Your task to perform on an android device: change keyboard looks Image 0: 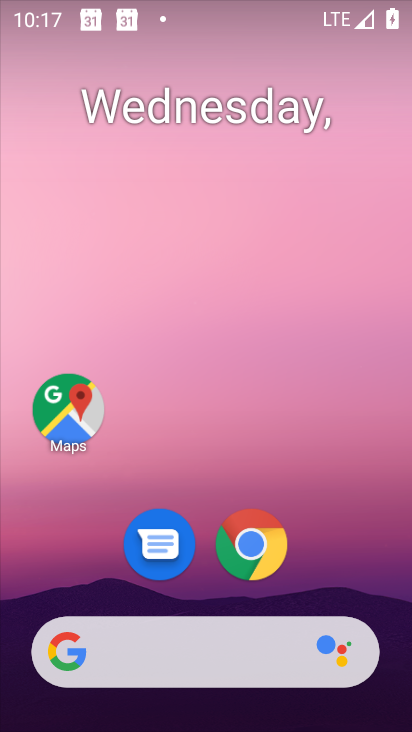
Step 0: drag from (330, 574) to (311, 76)
Your task to perform on an android device: change keyboard looks Image 1: 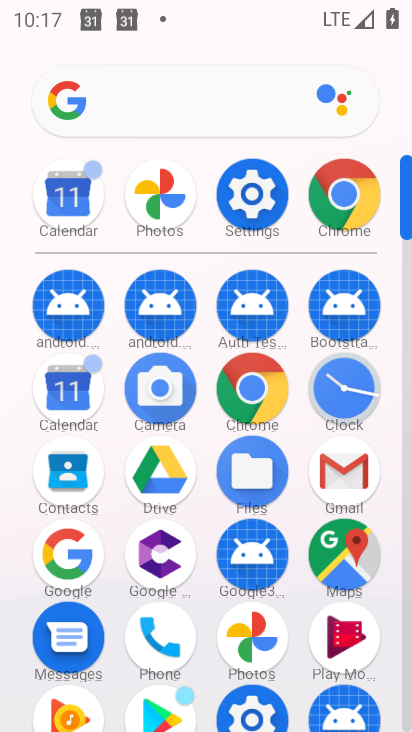
Step 1: click (236, 186)
Your task to perform on an android device: change keyboard looks Image 2: 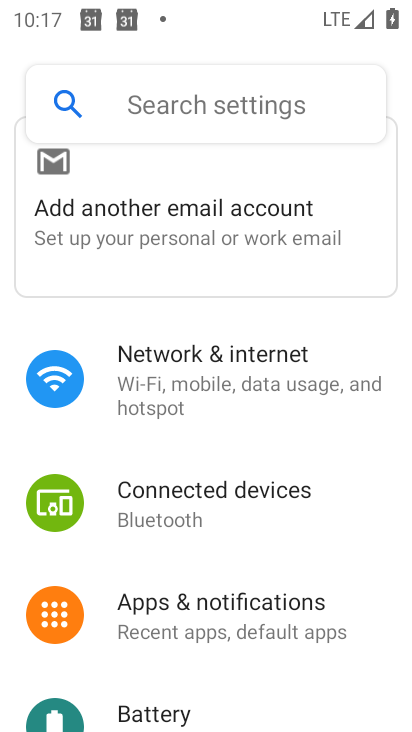
Step 2: drag from (187, 591) to (211, 135)
Your task to perform on an android device: change keyboard looks Image 3: 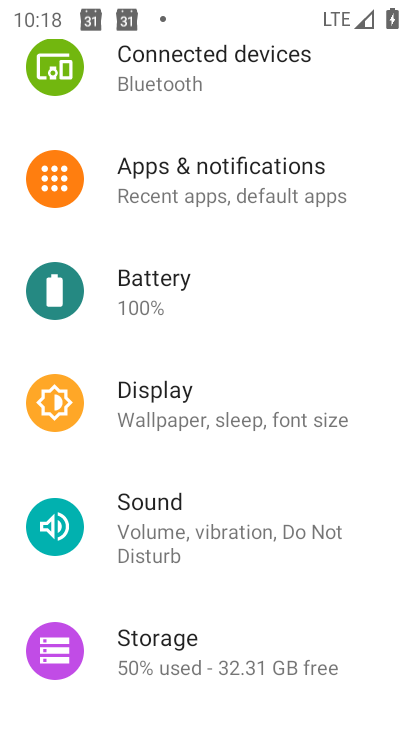
Step 3: drag from (212, 353) to (221, 254)
Your task to perform on an android device: change keyboard looks Image 4: 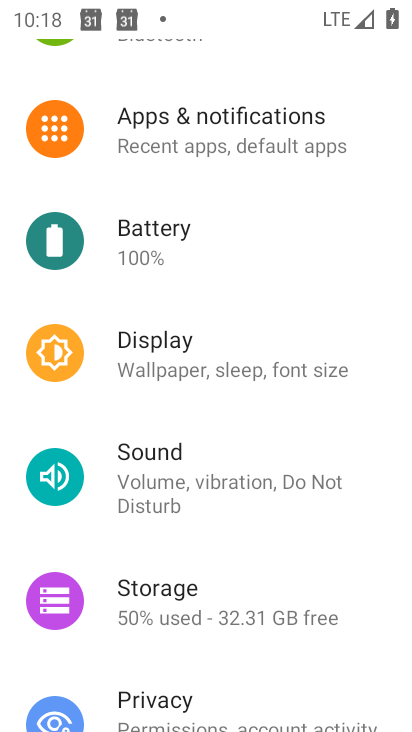
Step 4: drag from (201, 614) to (205, 255)
Your task to perform on an android device: change keyboard looks Image 5: 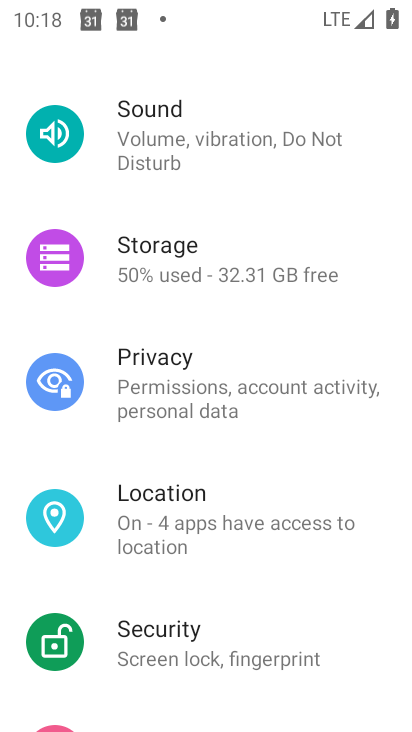
Step 5: drag from (212, 596) to (222, 134)
Your task to perform on an android device: change keyboard looks Image 6: 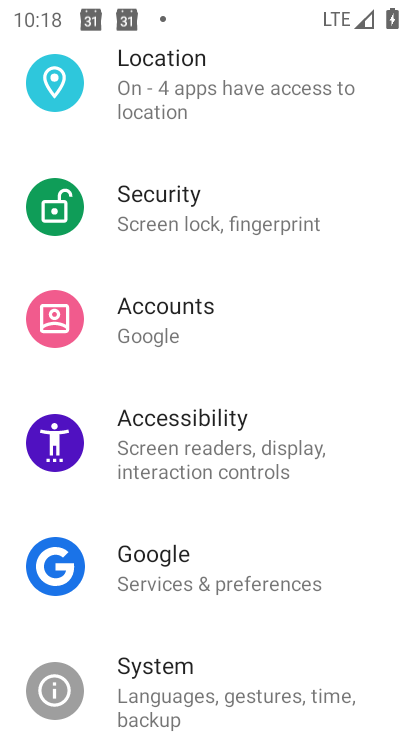
Step 6: click (157, 677)
Your task to perform on an android device: change keyboard looks Image 7: 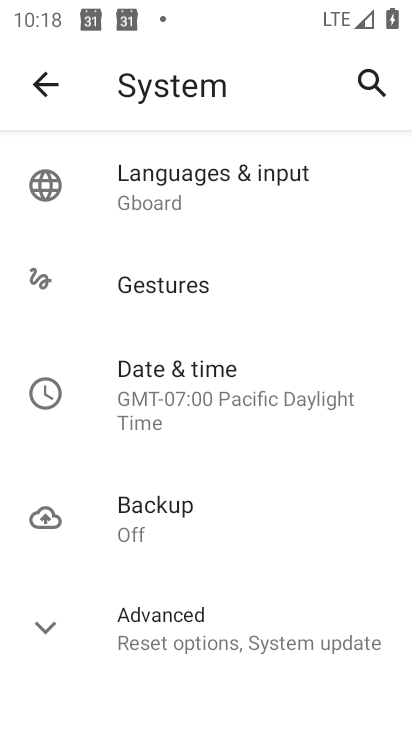
Step 7: click (213, 166)
Your task to perform on an android device: change keyboard looks Image 8: 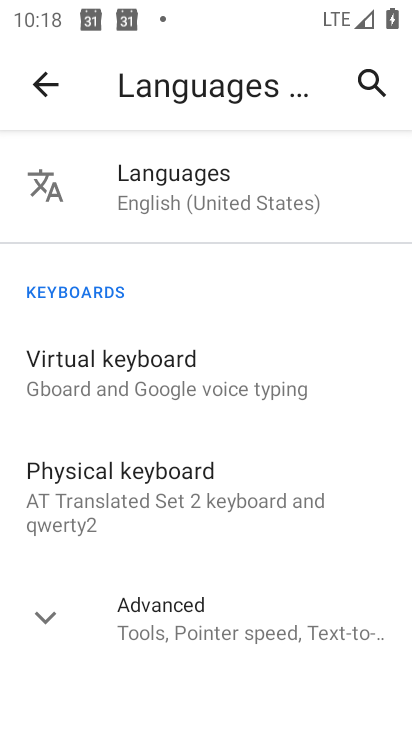
Step 8: click (123, 357)
Your task to perform on an android device: change keyboard looks Image 9: 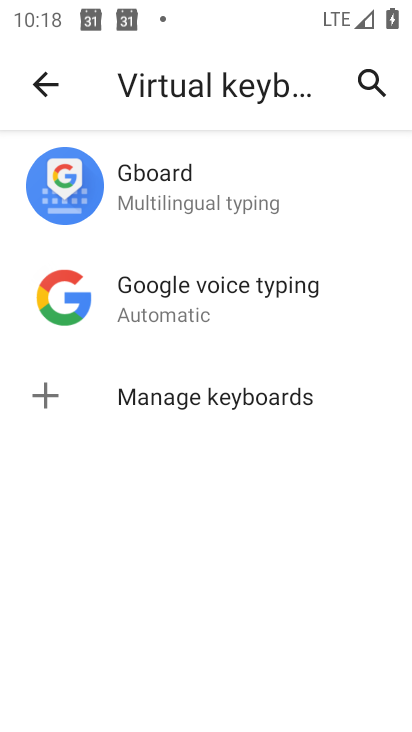
Step 9: click (199, 188)
Your task to perform on an android device: change keyboard looks Image 10: 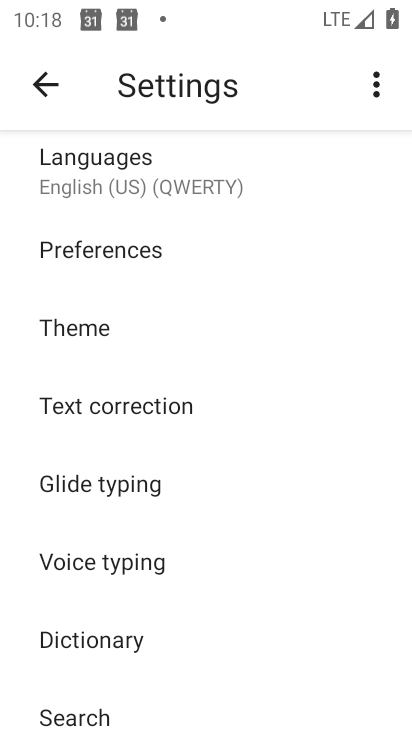
Step 10: click (129, 329)
Your task to perform on an android device: change keyboard looks Image 11: 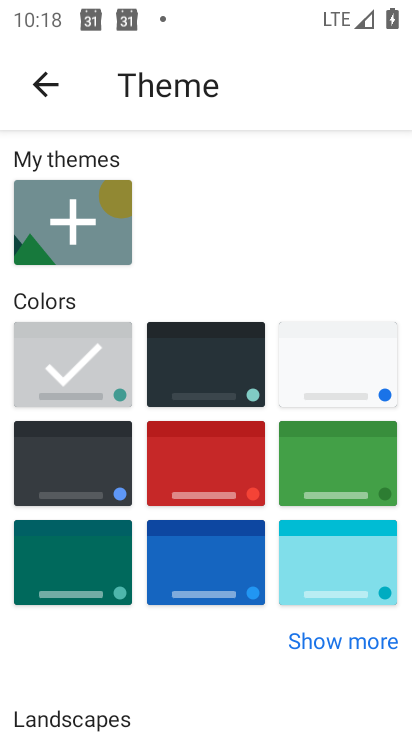
Step 11: click (86, 553)
Your task to perform on an android device: change keyboard looks Image 12: 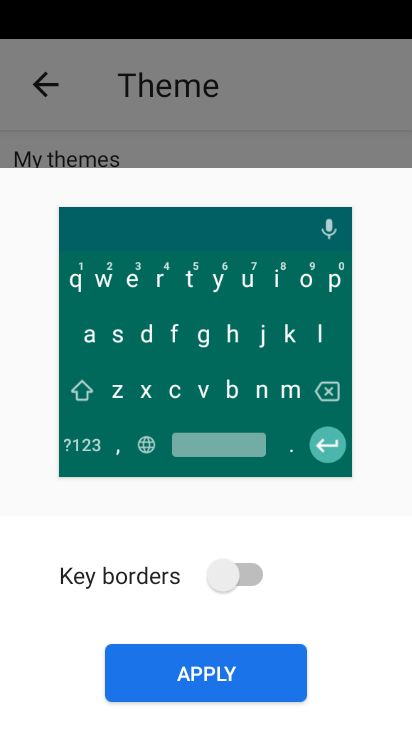
Step 12: click (181, 675)
Your task to perform on an android device: change keyboard looks Image 13: 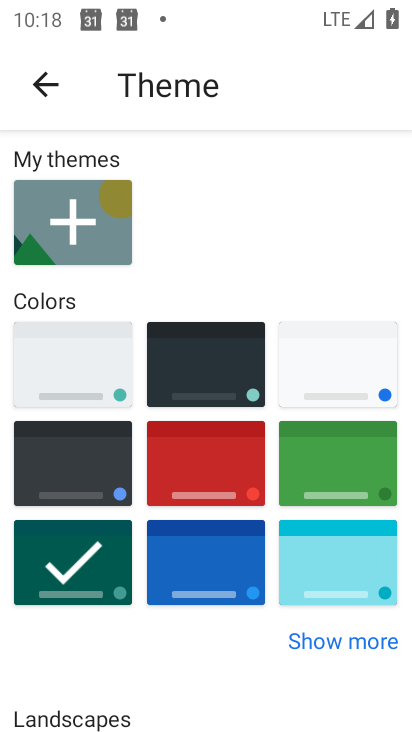
Step 13: task complete